Your task to perform on an android device: What's the weather today? Image 0: 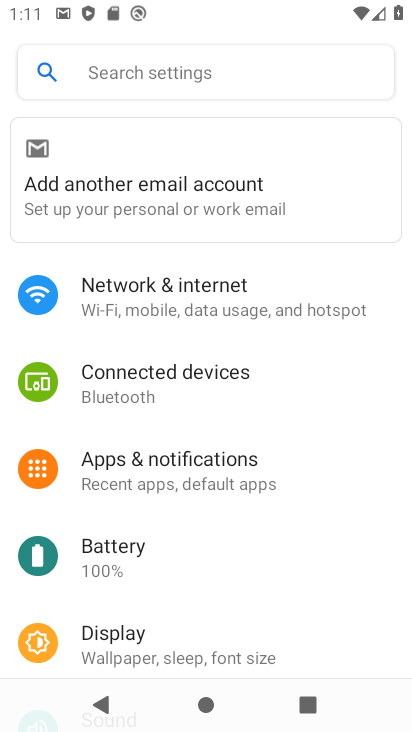
Step 0: press home button
Your task to perform on an android device: What's the weather today? Image 1: 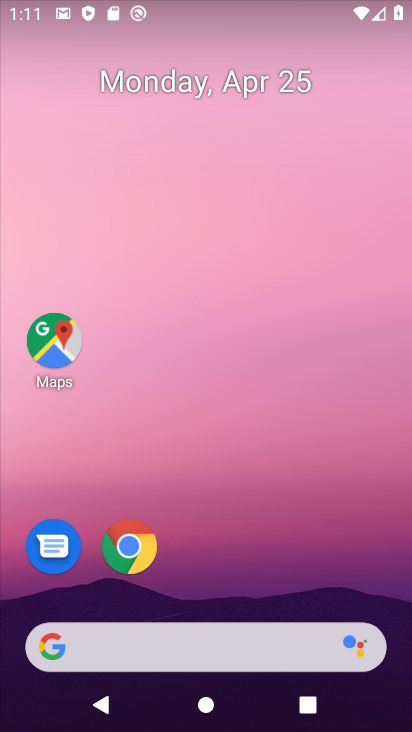
Step 1: drag from (357, 327) to (0, 304)
Your task to perform on an android device: What's the weather today? Image 2: 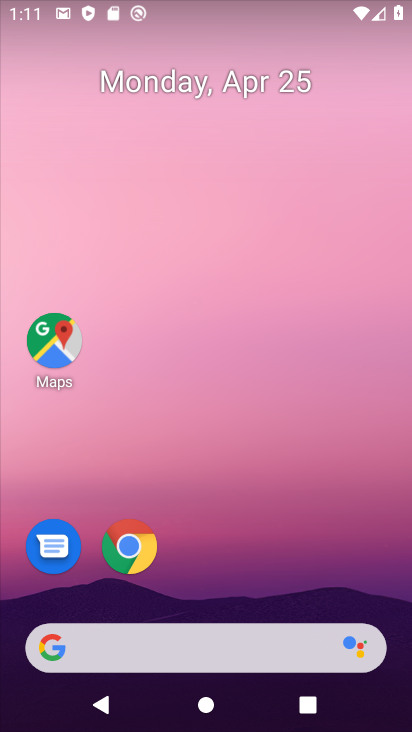
Step 2: drag from (26, 208) to (404, 101)
Your task to perform on an android device: What's the weather today? Image 3: 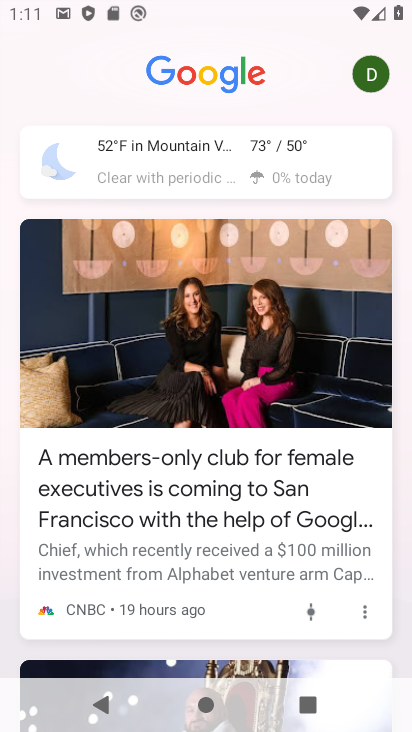
Step 3: click (272, 146)
Your task to perform on an android device: What's the weather today? Image 4: 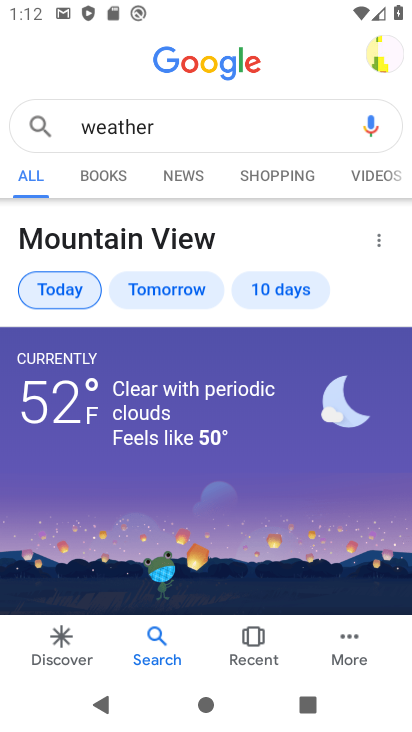
Step 4: task complete